Your task to perform on an android device: Go to Yahoo.com Image 0: 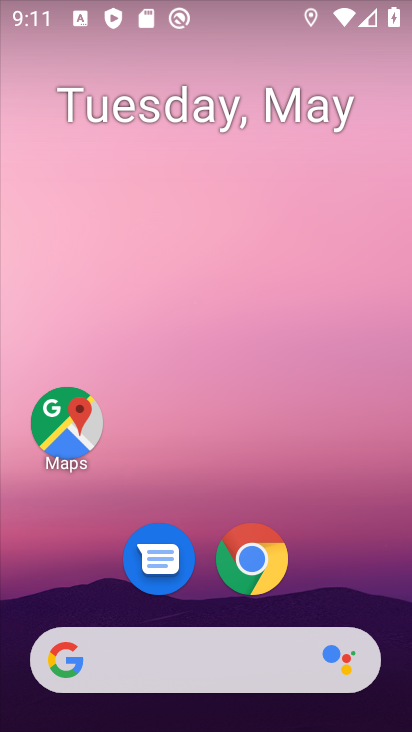
Step 0: click (256, 577)
Your task to perform on an android device: Go to Yahoo.com Image 1: 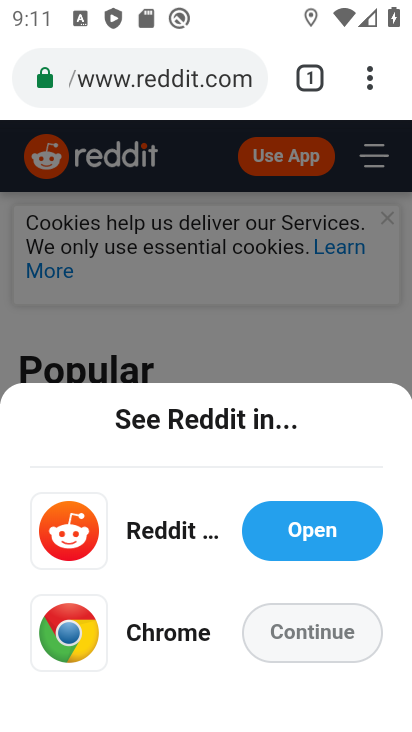
Step 1: click (276, 643)
Your task to perform on an android device: Go to Yahoo.com Image 2: 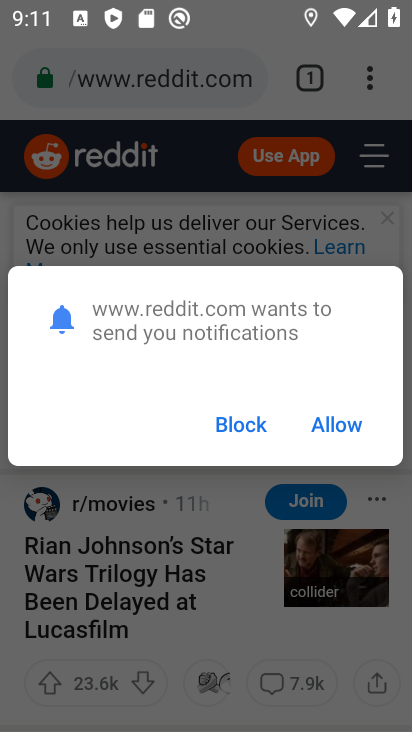
Step 2: click (333, 429)
Your task to perform on an android device: Go to Yahoo.com Image 3: 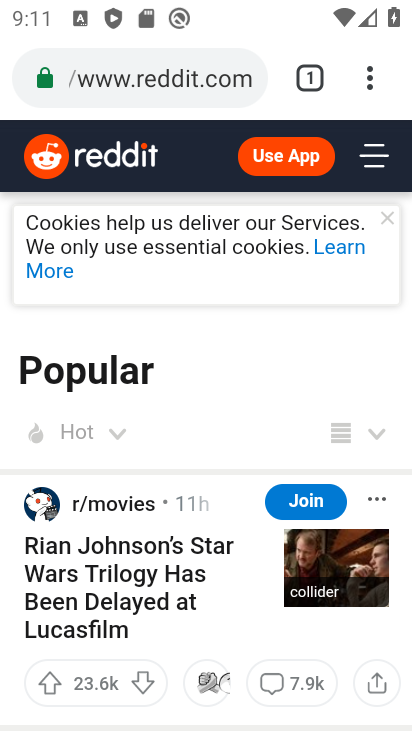
Step 3: click (156, 78)
Your task to perform on an android device: Go to Yahoo.com Image 4: 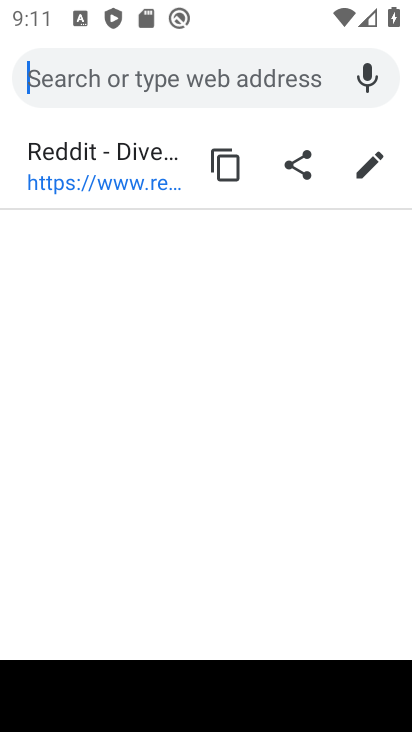
Step 4: type "yahoo.com"
Your task to perform on an android device: Go to Yahoo.com Image 5: 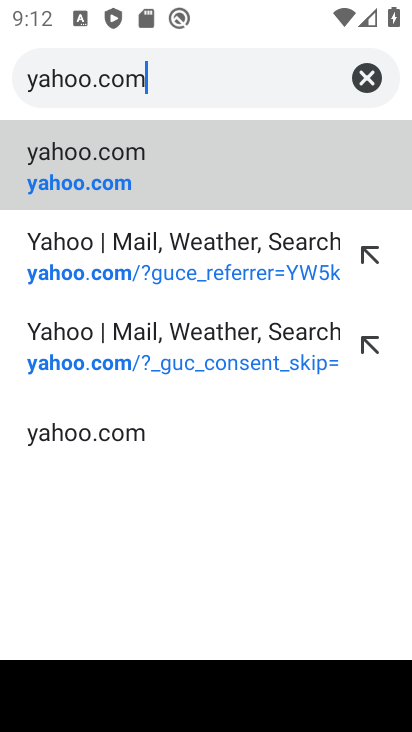
Step 5: click (123, 171)
Your task to perform on an android device: Go to Yahoo.com Image 6: 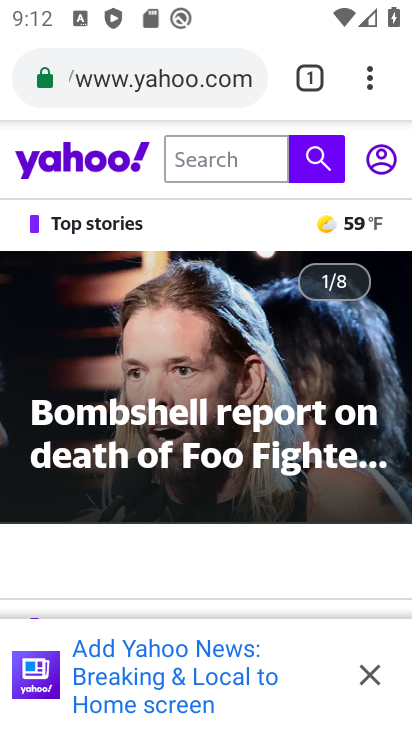
Step 6: task complete